Your task to perform on an android device: choose inbox layout in the gmail app Image 0: 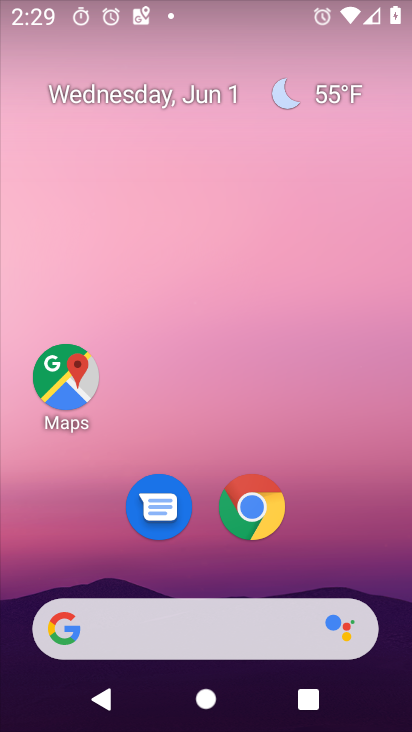
Step 0: drag from (330, 562) to (320, 20)
Your task to perform on an android device: choose inbox layout in the gmail app Image 1: 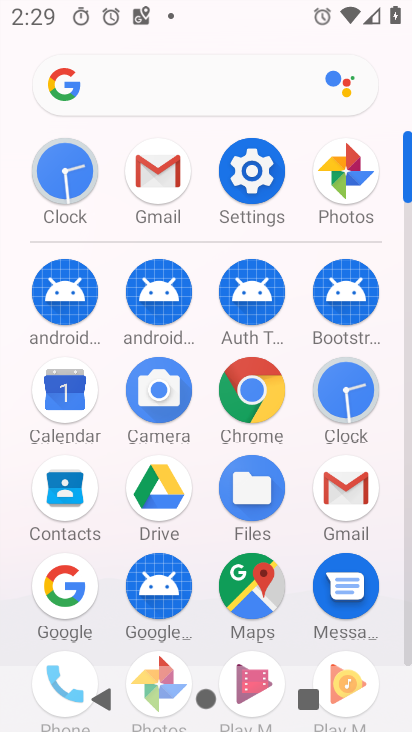
Step 1: click (146, 169)
Your task to perform on an android device: choose inbox layout in the gmail app Image 2: 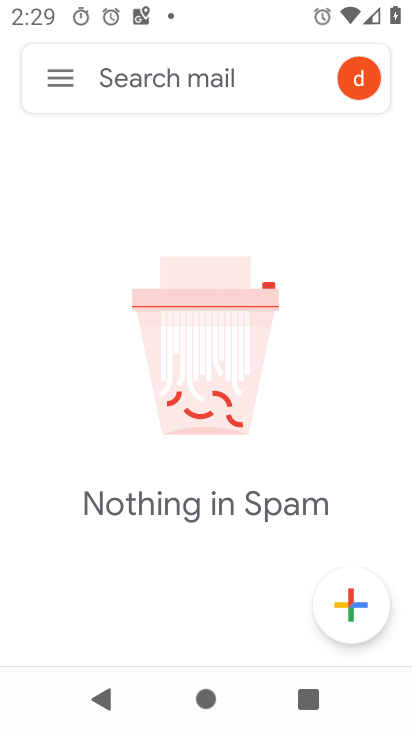
Step 2: click (64, 81)
Your task to perform on an android device: choose inbox layout in the gmail app Image 3: 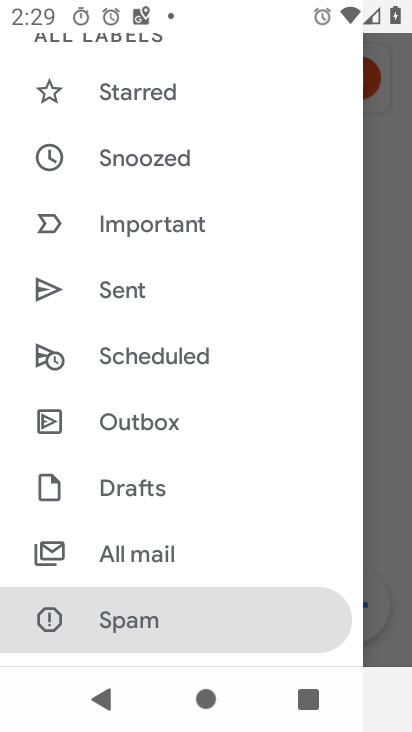
Step 3: drag from (244, 558) to (209, 55)
Your task to perform on an android device: choose inbox layout in the gmail app Image 4: 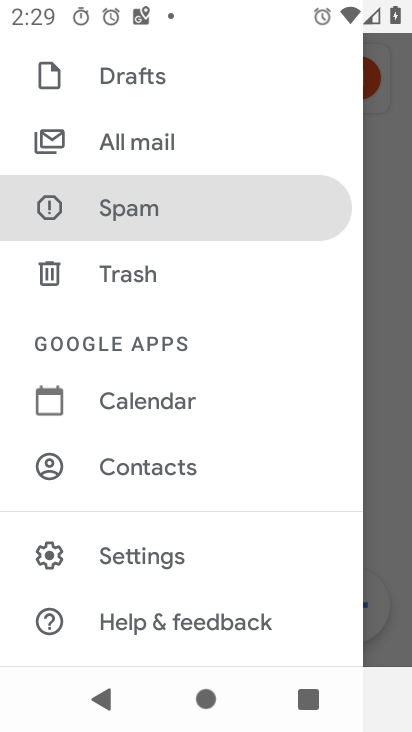
Step 4: click (148, 563)
Your task to perform on an android device: choose inbox layout in the gmail app Image 5: 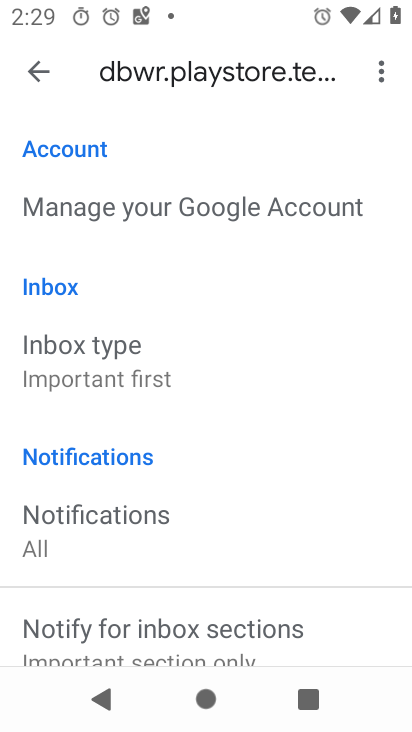
Step 5: click (55, 359)
Your task to perform on an android device: choose inbox layout in the gmail app Image 6: 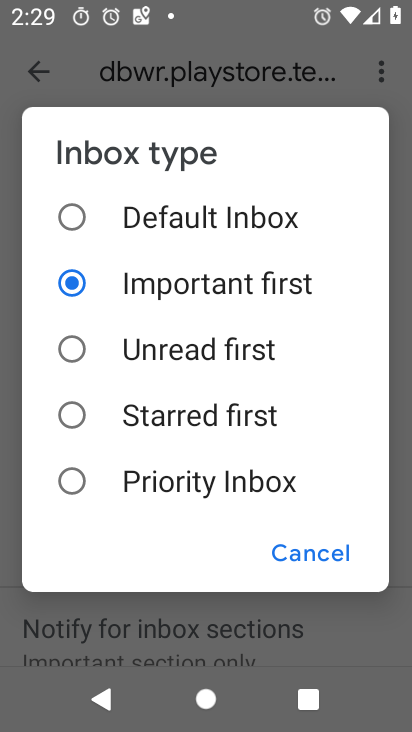
Step 6: click (84, 412)
Your task to perform on an android device: choose inbox layout in the gmail app Image 7: 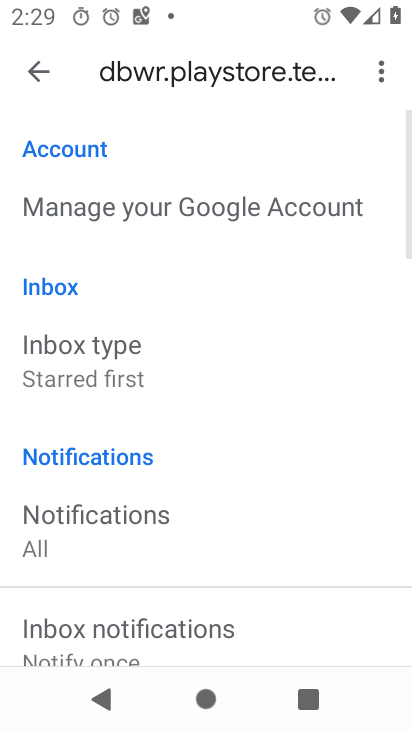
Step 7: task complete